Your task to perform on an android device: Open Google Maps Image 0: 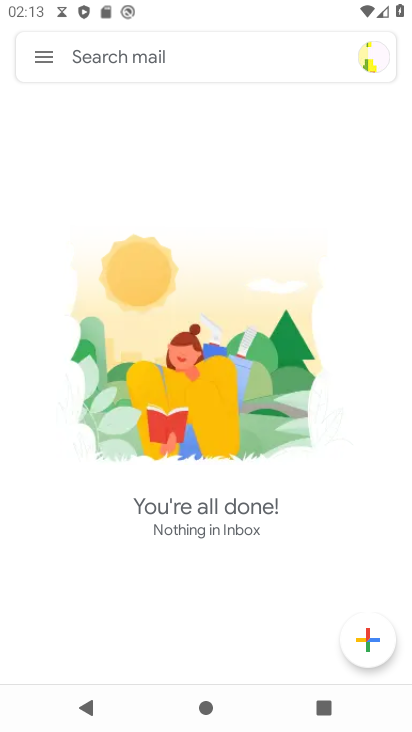
Step 0: press home button
Your task to perform on an android device: Open Google Maps Image 1: 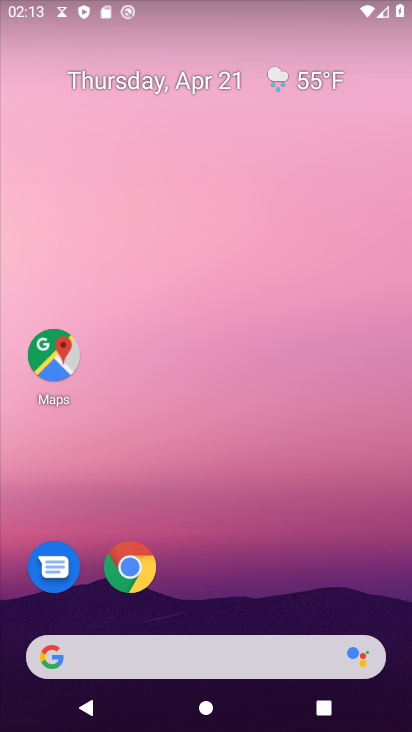
Step 1: drag from (168, 648) to (318, 224)
Your task to perform on an android device: Open Google Maps Image 2: 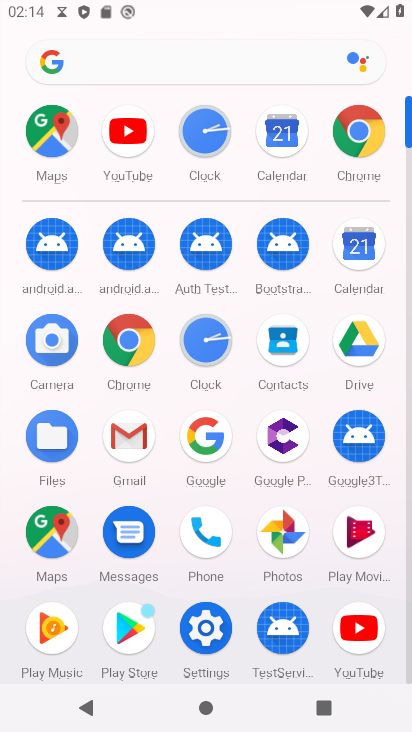
Step 2: click (54, 137)
Your task to perform on an android device: Open Google Maps Image 3: 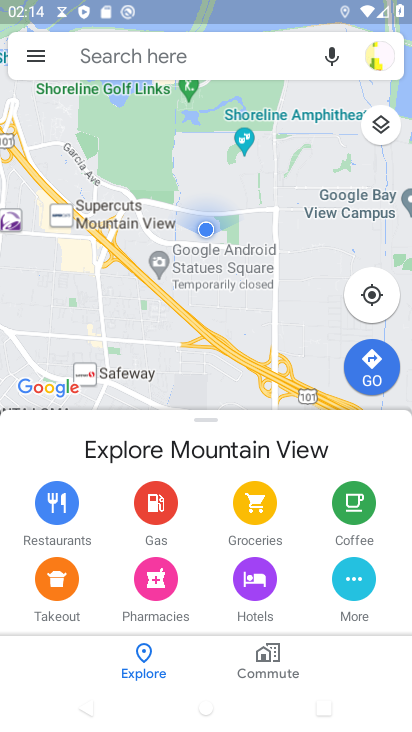
Step 3: task complete